Your task to perform on an android device: See recent photos Image 0: 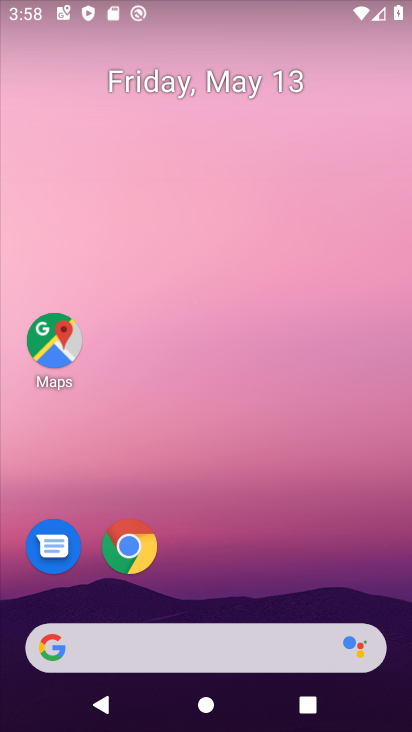
Step 0: drag from (196, 596) to (163, 21)
Your task to perform on an android device: See recent photos Image 1: 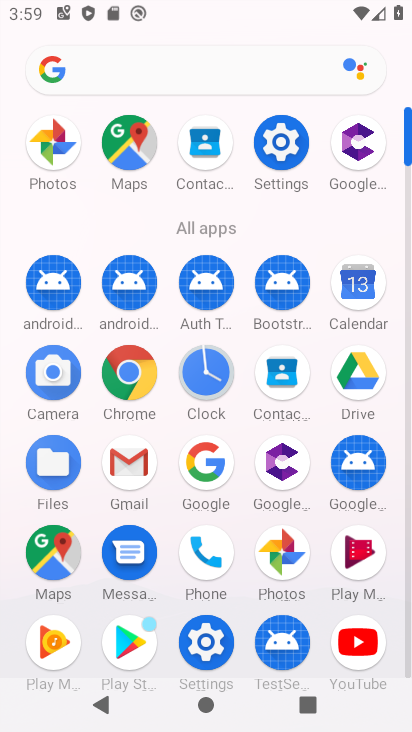
Step 1: click (306, 561)
Your task to perform on an android device: See recent photos Image 2: 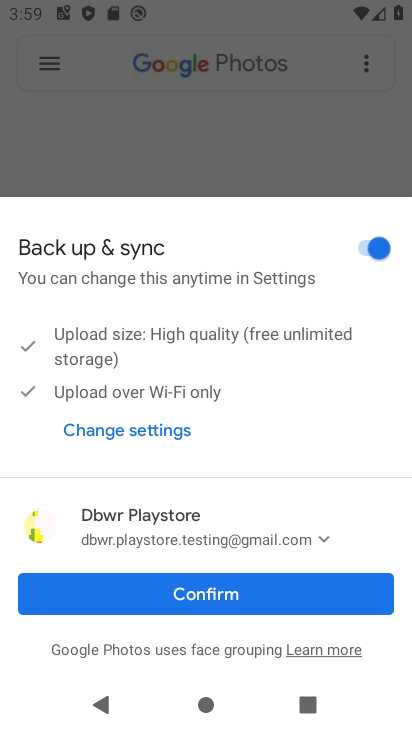
Step 2: click (288, 573)
Your task to perform on an android device: See recent photos Image 3: 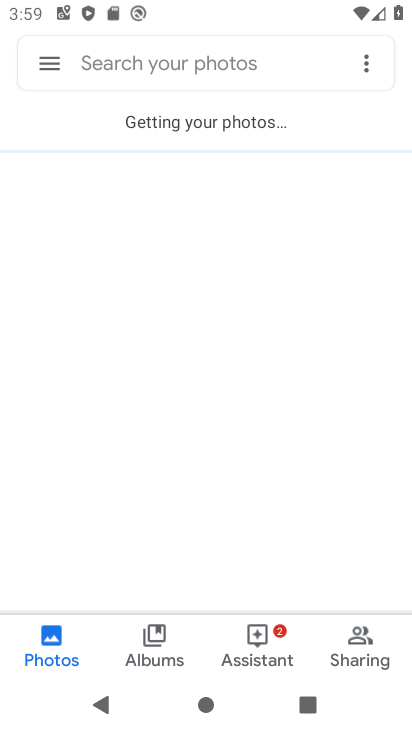
Step 3: click (208, 461)
Your task to perform on an android device: See recent photos Image 4: 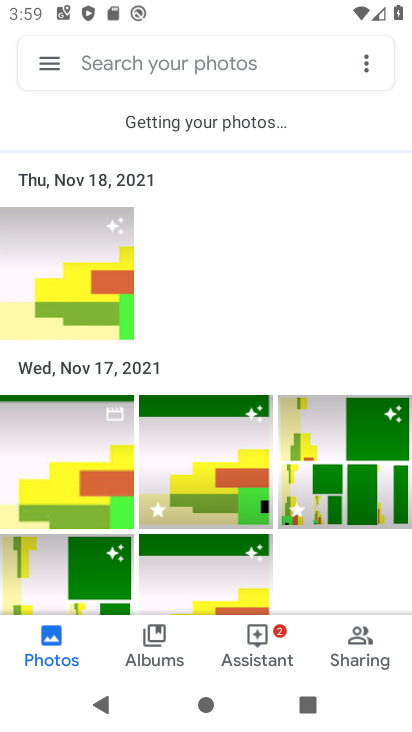
Step 4: task complete